Your task to perform on an android device: change alarm snooze length Image 0: 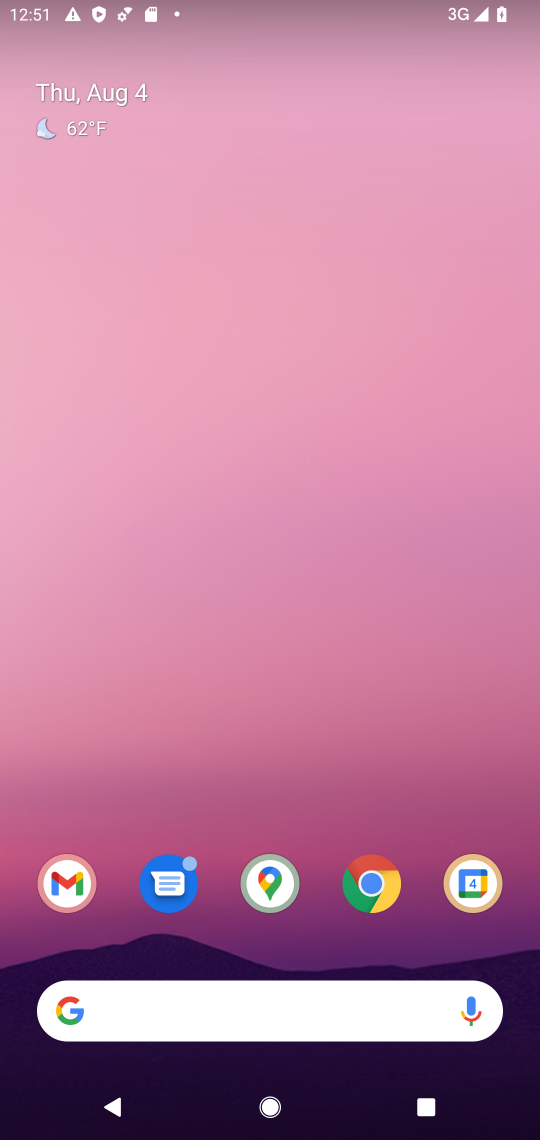
Step 0: drag from (219, 877) to (201, 432)
Your task to perform on an android device: change alarm snooze length Image 1: 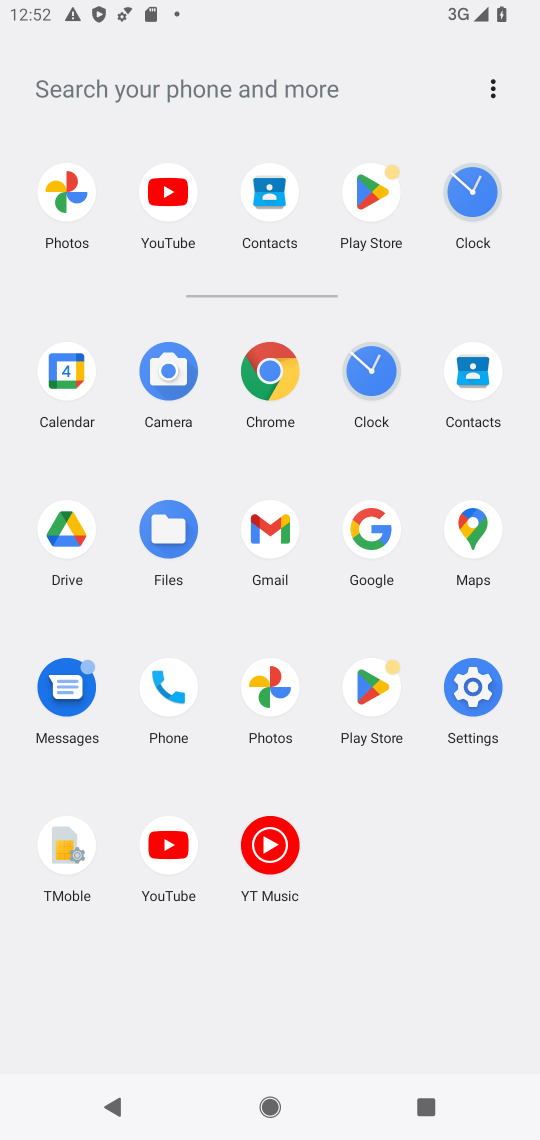
Step 1: drag from (262, 961) to (336, 430)
Your task to perform on an android device: change alarm snooze length Image 2: 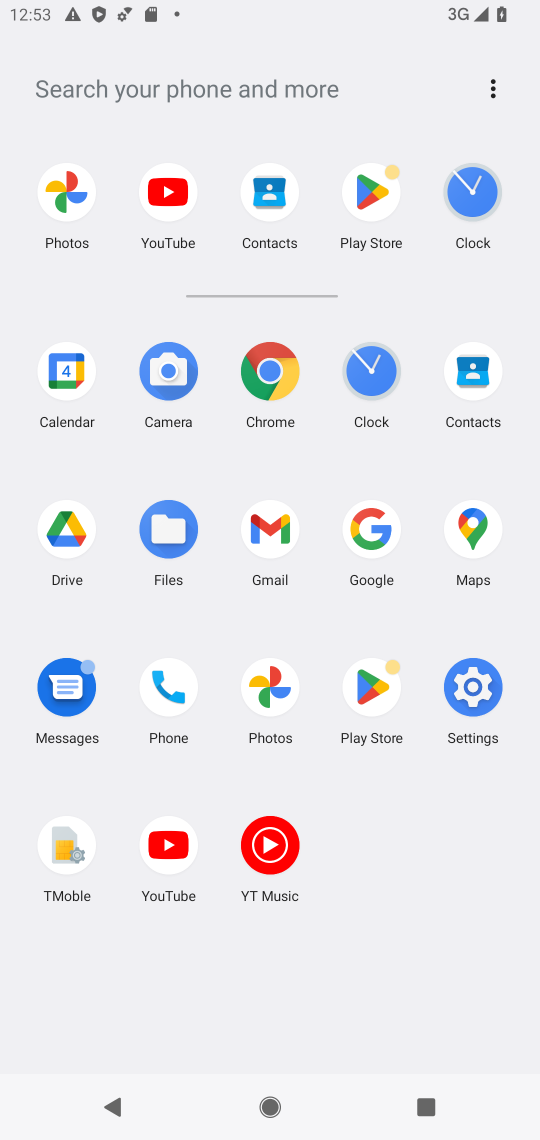
Step 2: click (405, 377)
Your task to perform on an android device: change alarm snooze length Image 3: 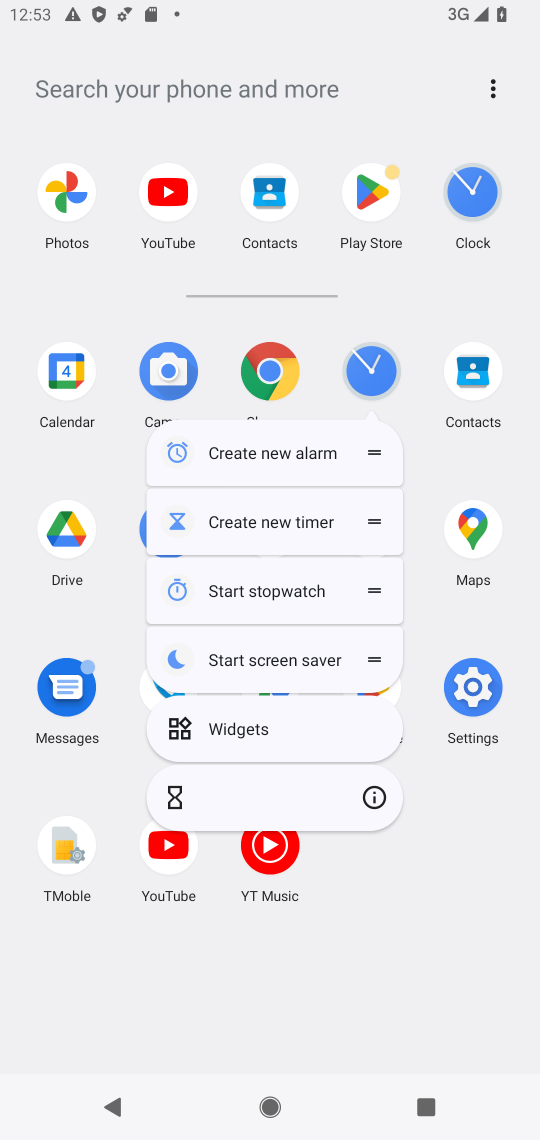
Step 3: click (379, 777)
Your task to perform on an android device: change alarm snooze length Image 4: 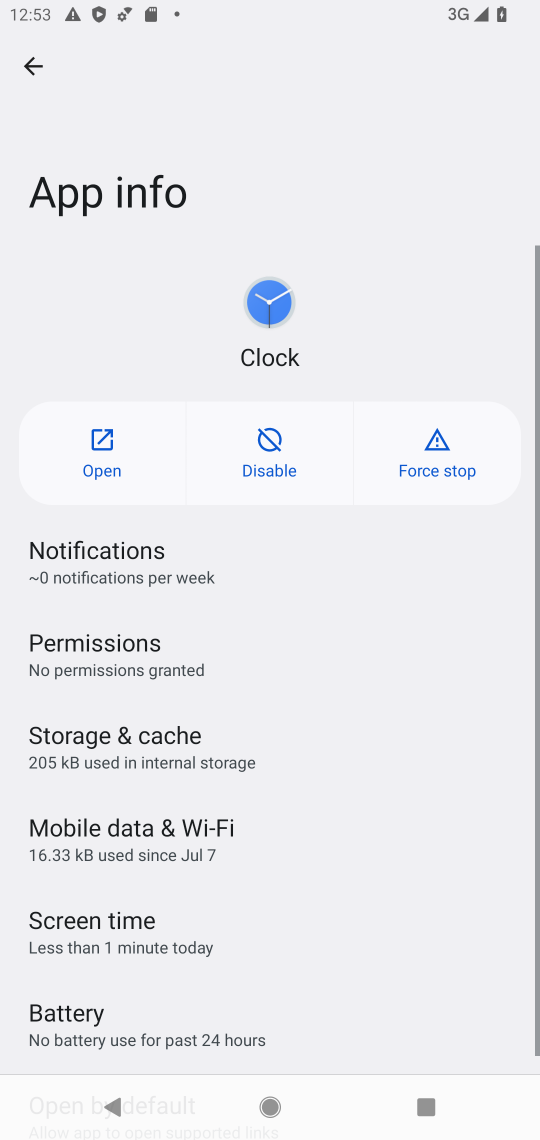
Step 4: click (99, 448)
Your task to perform on an android device: change alarm snooze length Image 5: 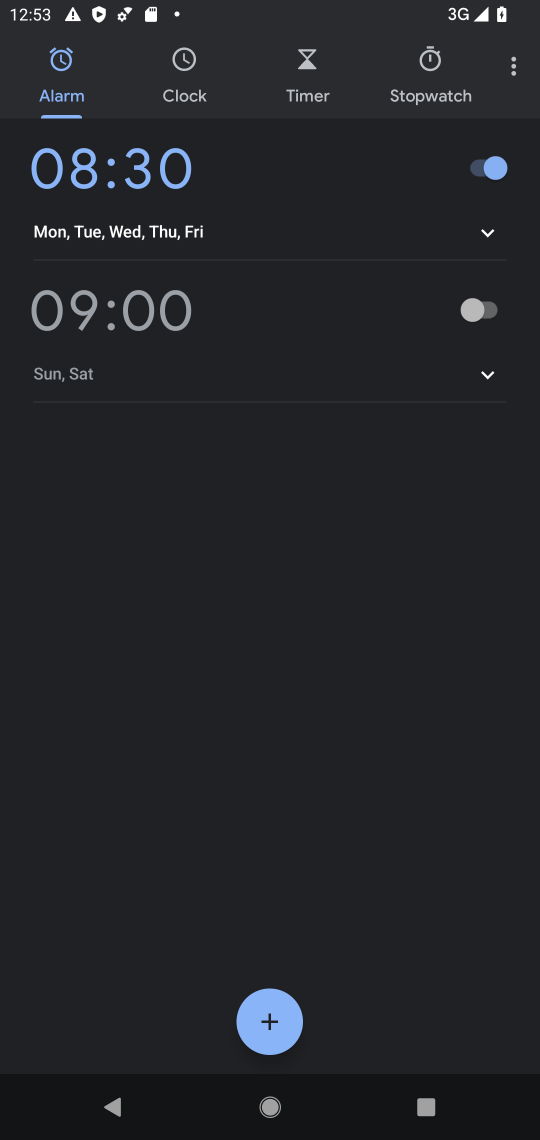
Step 5: drag from (513, 57) to (367, 104)
Your task to perform on an android device: change alarm snooze length Image 6: 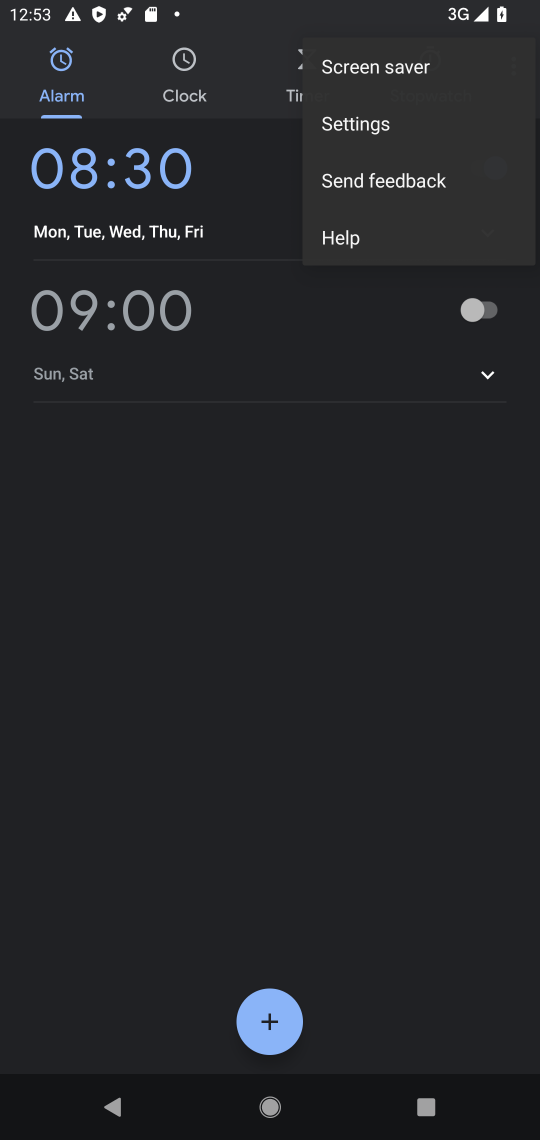
Step 6: click (359, 101)
Your task to perform on an android device: change alarm snooze length Image 7: 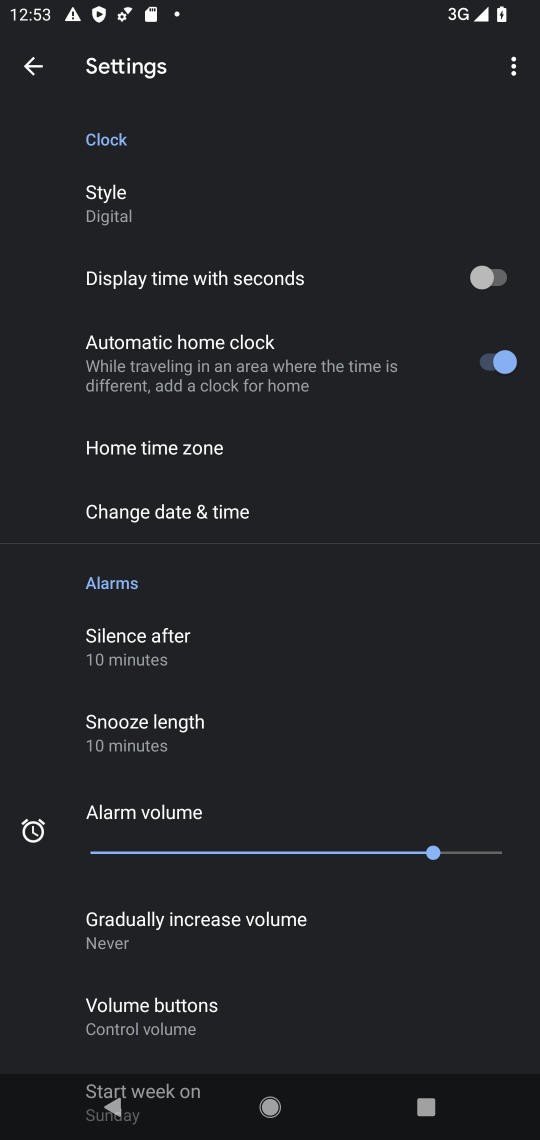
Step 7: click (236, 735)
Your task to perform on an android device: change alarm snooze length Image 8: 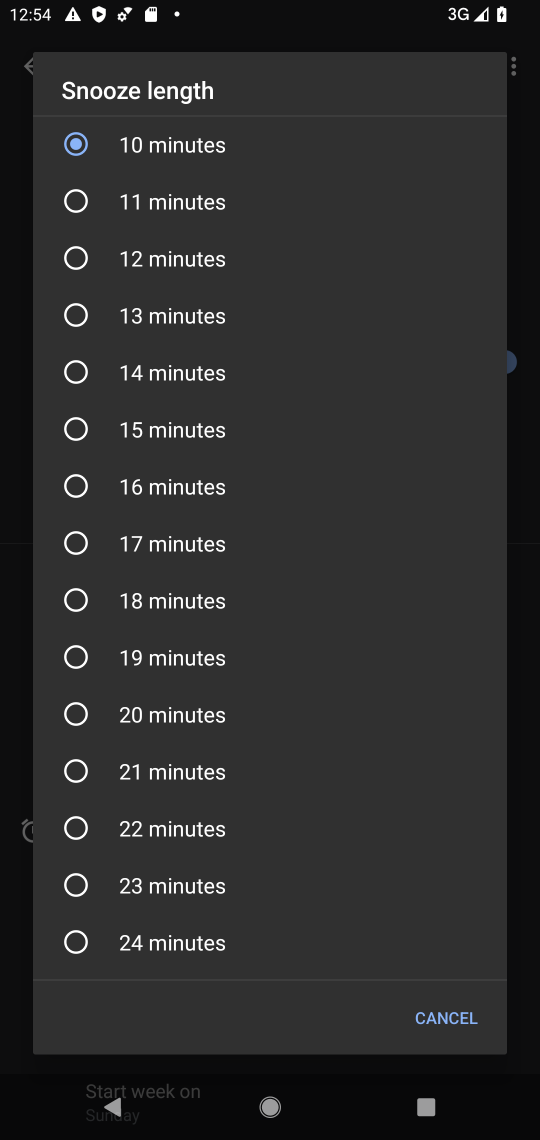
Step 8: drag from (113, 132) to (321, 958)
Your task to perform on an android device: change alarm snooze length Image 9: 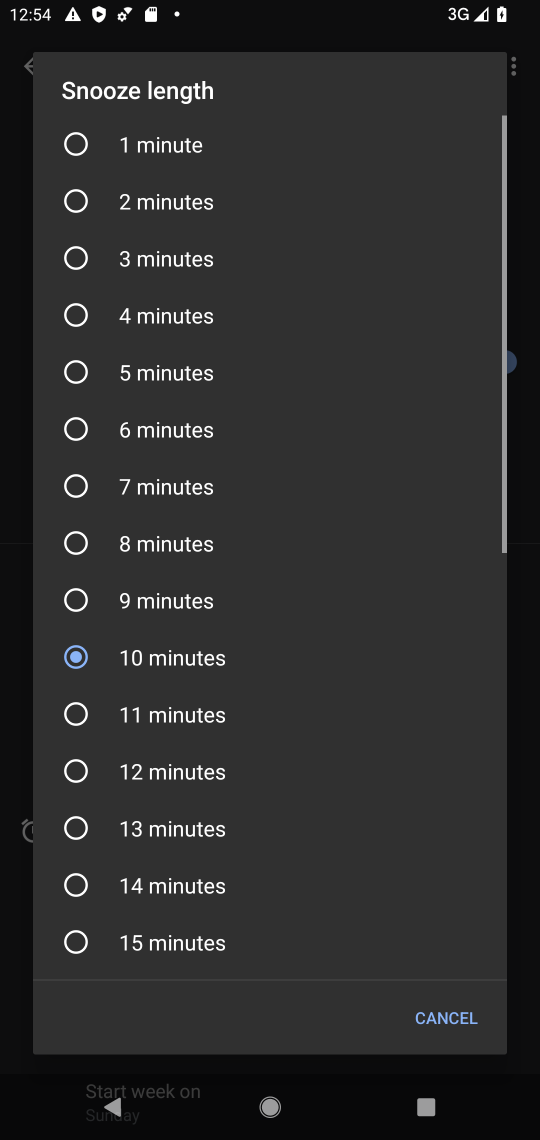
Step 9: click (117, 156)
Your task to perform on an android device: change alarm snooze length Image 10: 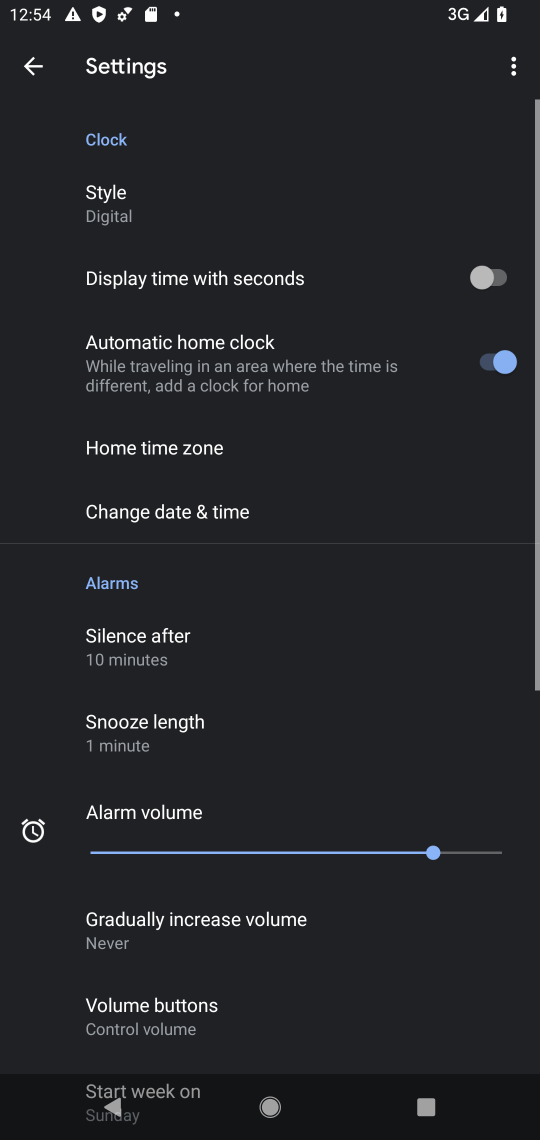
Step 10: drag from (321, 539) to (331, 1055)
Your task to perform on an android device: change alarm snooze length Image 11: 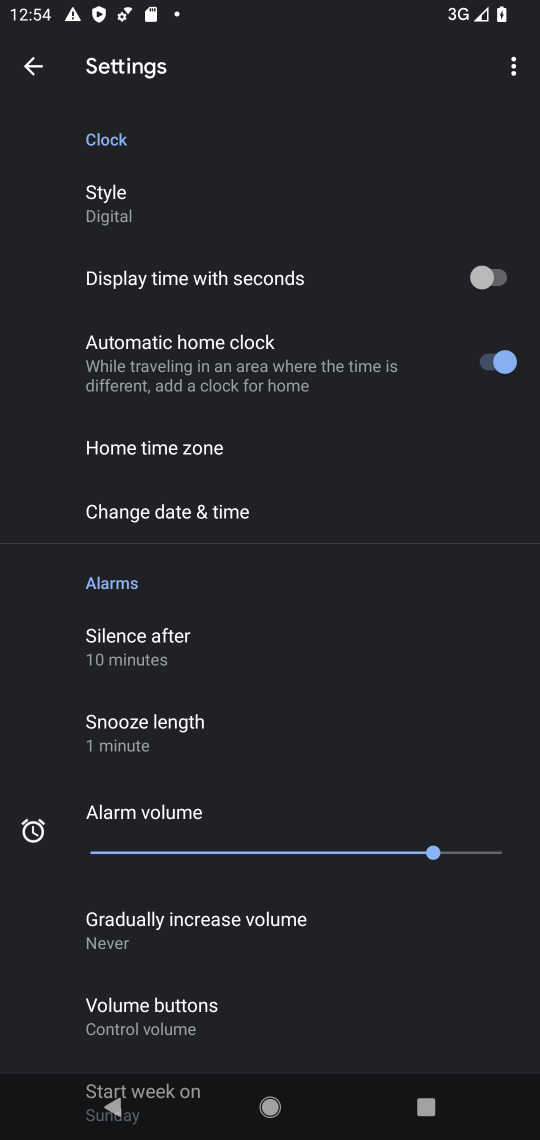
Step 11: drag from (302, 485) to (297, 1132)
Your task to perform on an android device: change alarm snooze length Image 12: 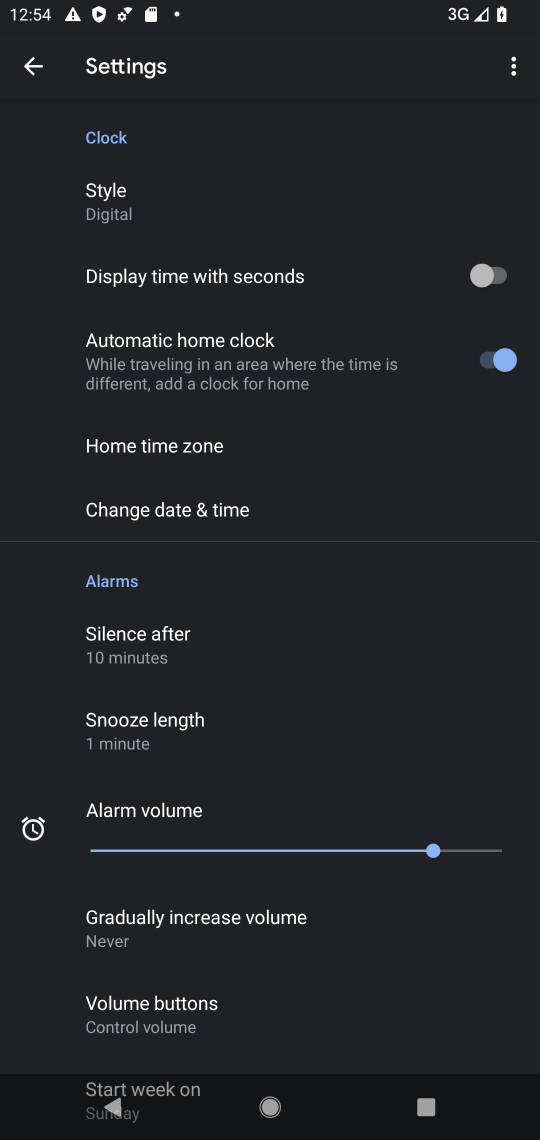
Step 12: drag from (330, 935) to (340, 320)
Your task to perform on an android device: change alarm snooze length Image 13: 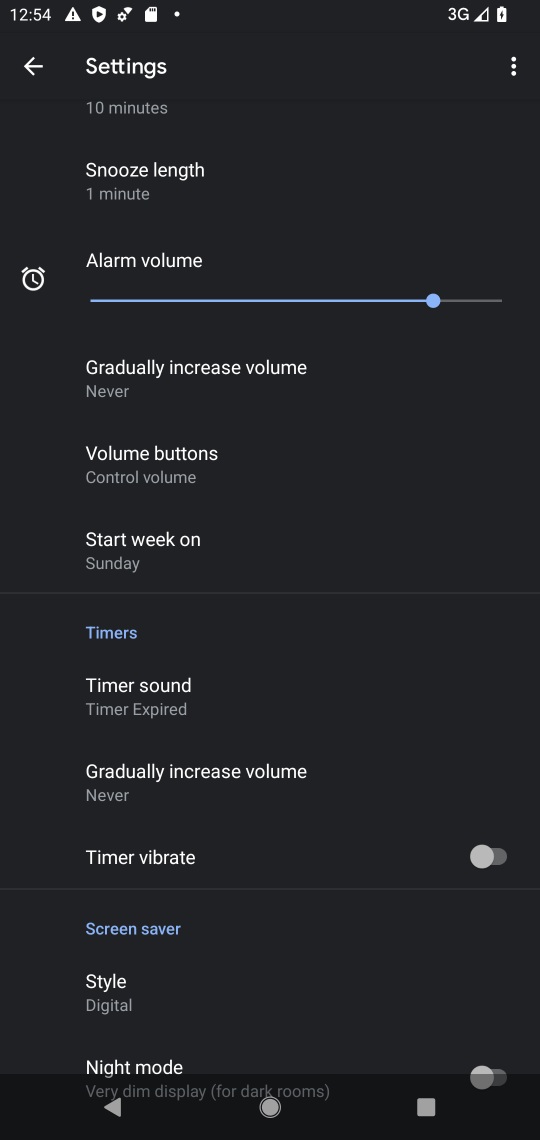
Step 13: drag from (286, 987) to (303, 433)
Your task to perform on an android device: change alarm snooze length Image 14: 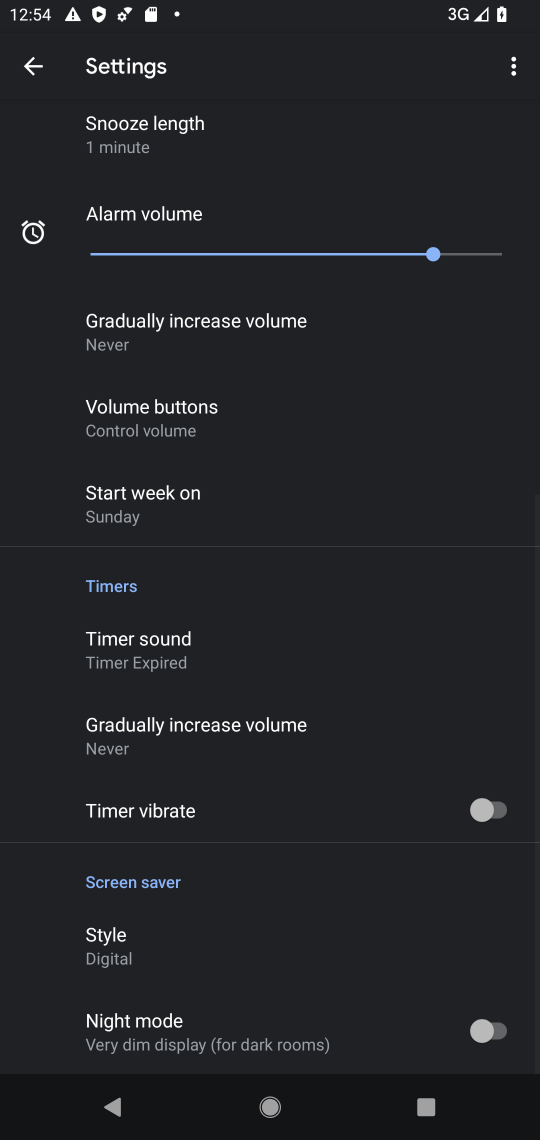
Step 14: drag from (409, 407) to (432, 1117)
Your task to perform on an android device: change alarm snooze length Image 15: 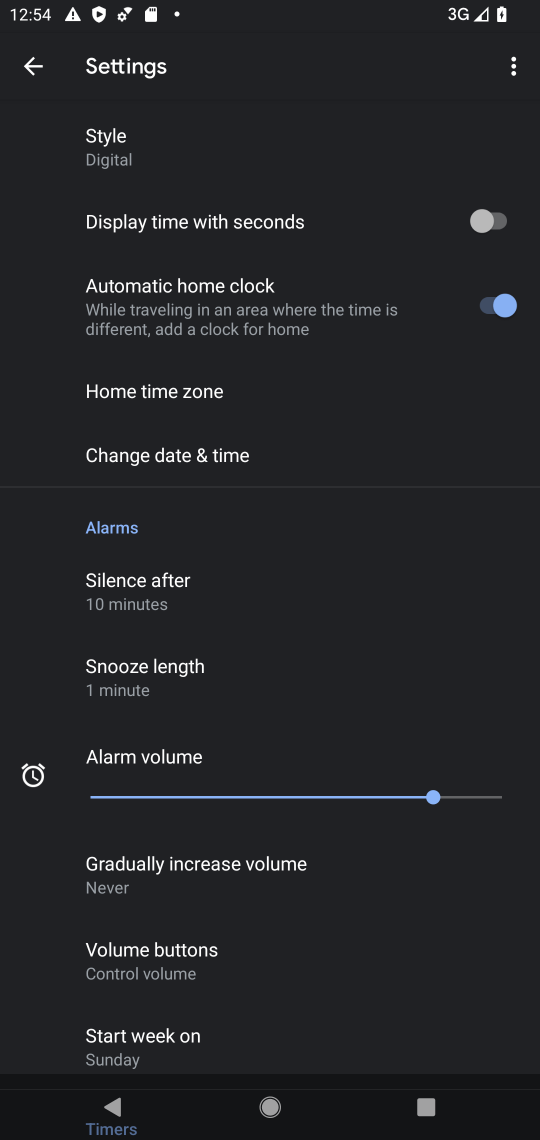
Step 15: click (144, 656)
Your task to perform on an android device: change alarm snooze length Image 16: 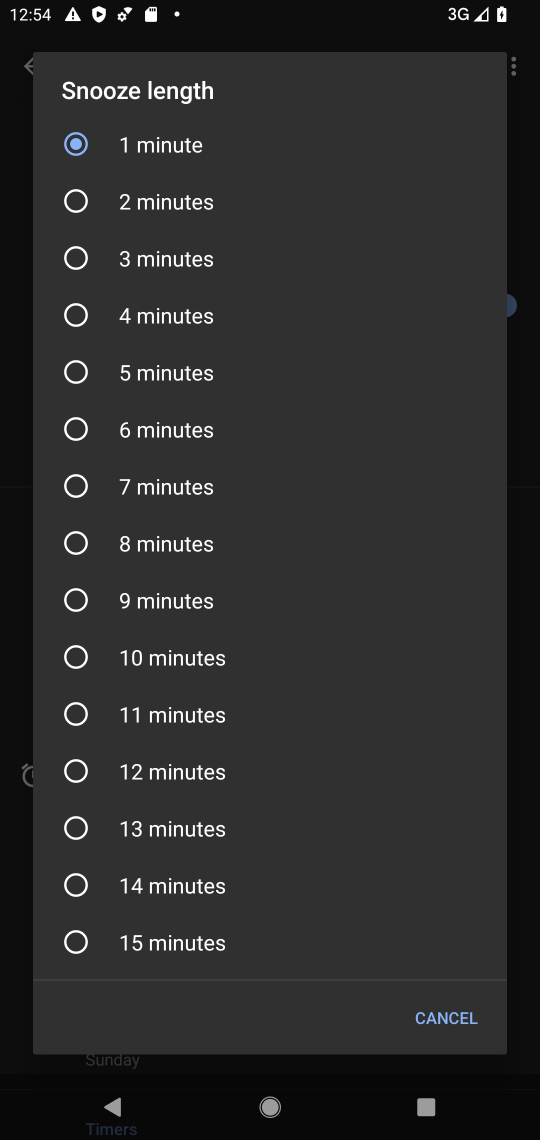
Step 16: drag from (212, 448) to (213, 924)
Your task to perform on an android device: change alarm snooze length Image 17: 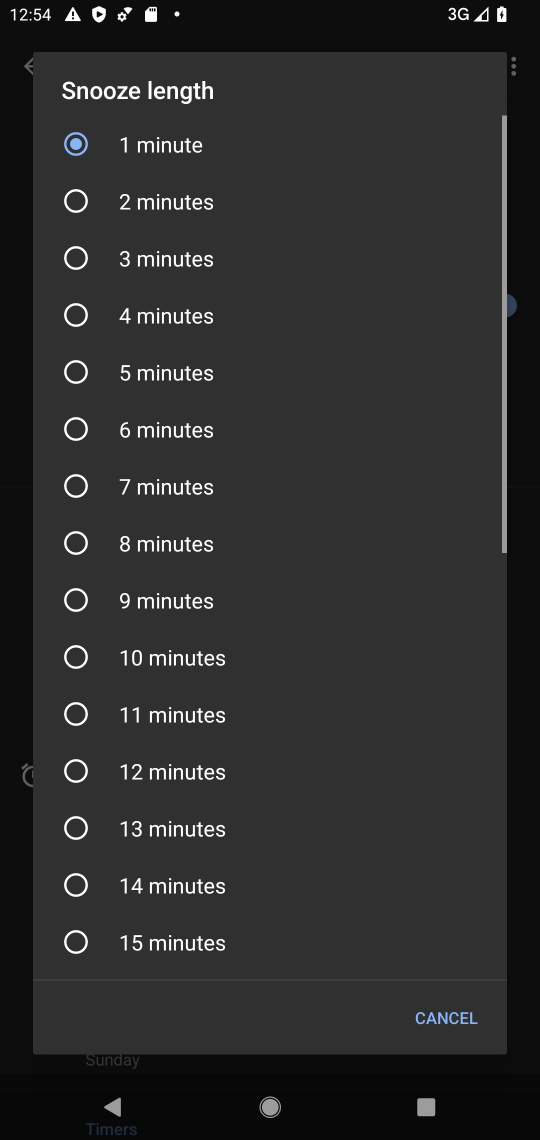
Step 17: click (121, 274)
Your task to perform on an android device: change alarm snooze length Image 18: 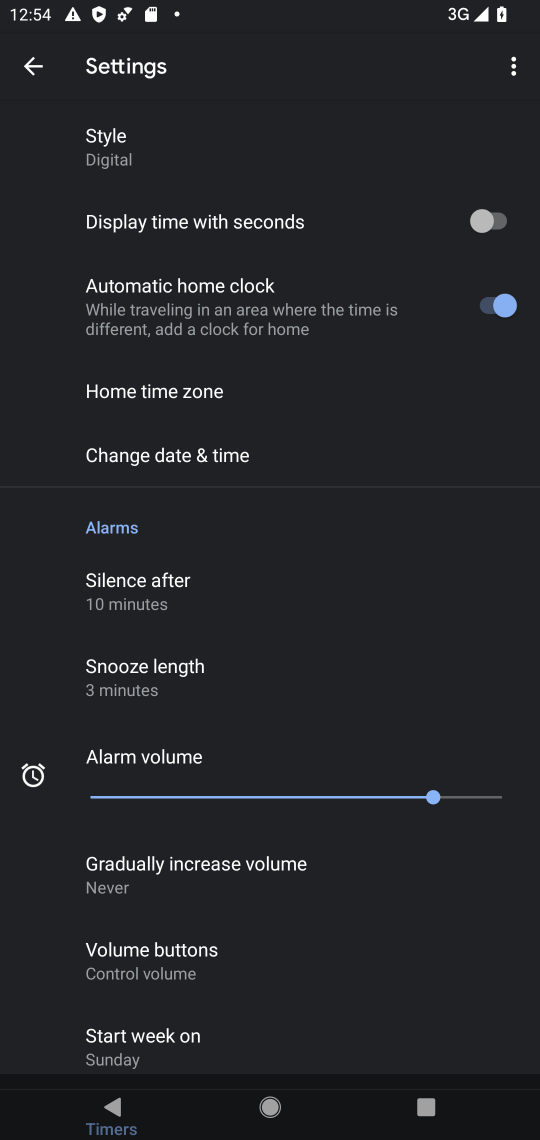
Step 18: click (233, 674)
Your task to perform on an android device: change alarm snooze length Image 19: 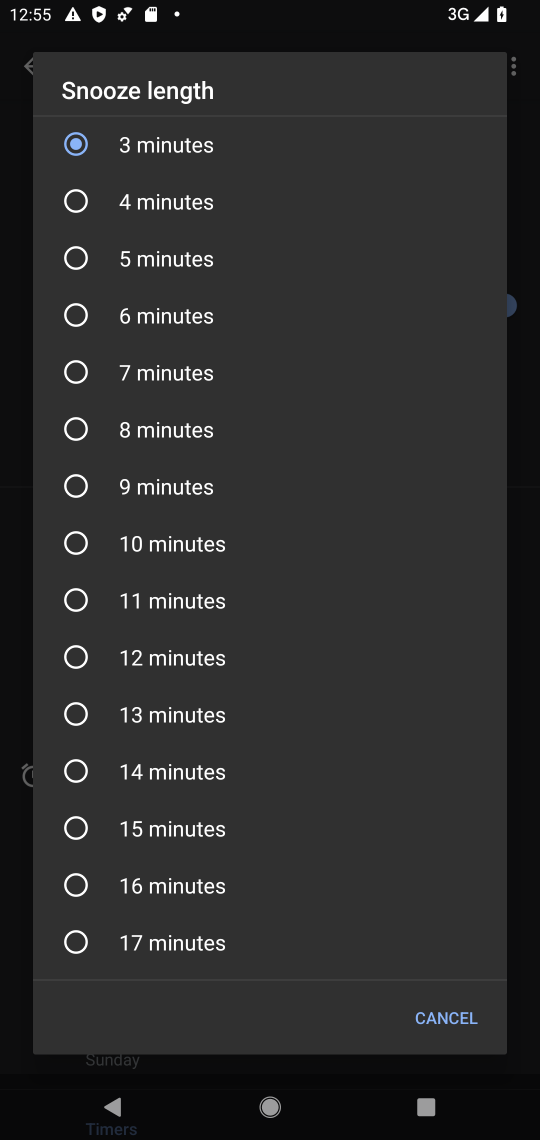
Step 19: drag from (225, 763) to (223, 392)
Your task to perform on an android device: change alarm snooze length Image 20: 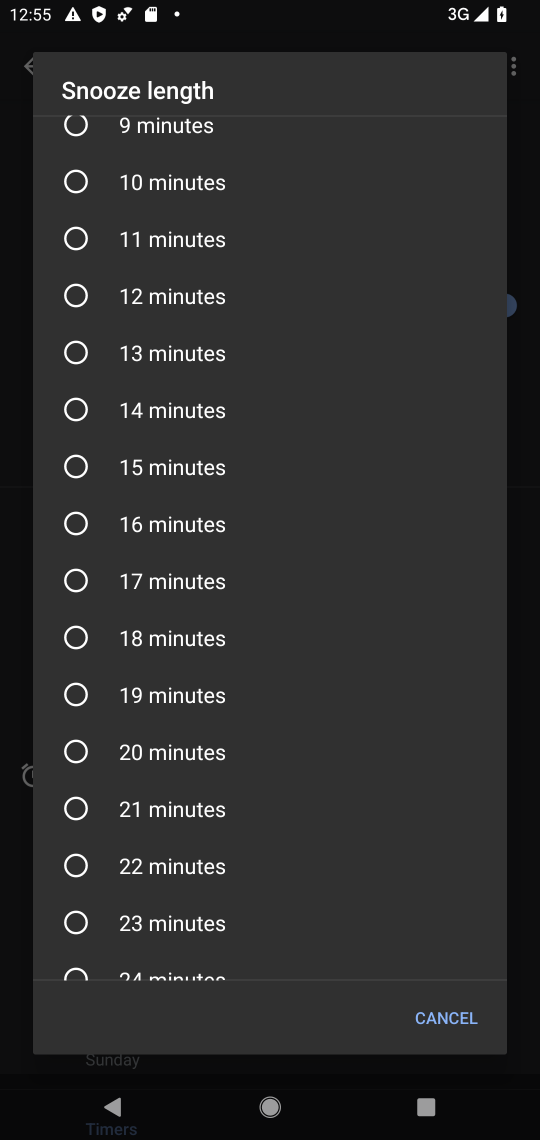
Step 20: click (235, 184)
Your task to perform on an android device: change alarm snooze length Image 21: 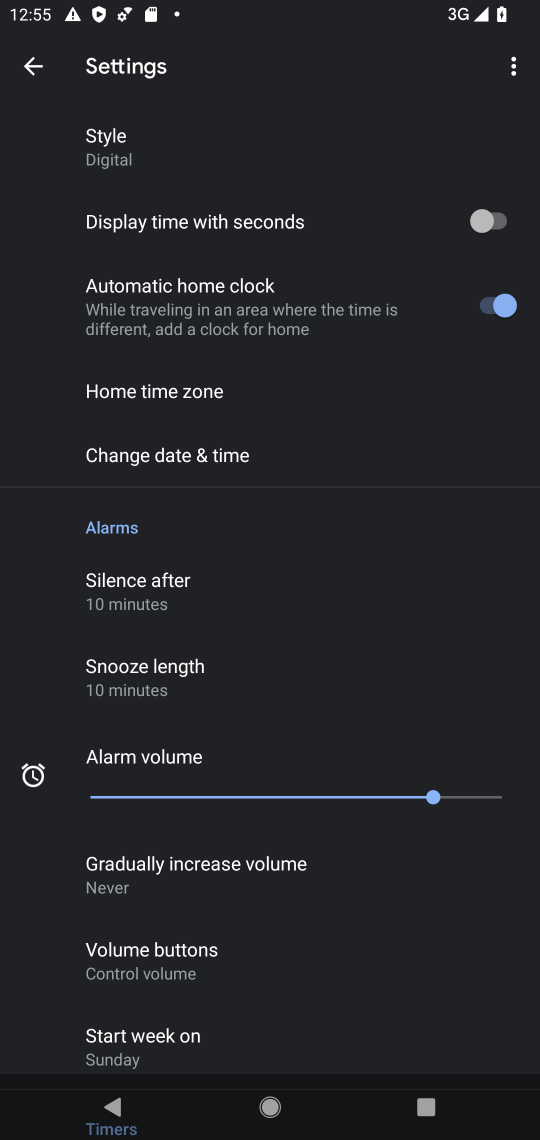
Step 21: drag from (212, 1053) to (286, 640)
Your task to perform on an android device: change alarm snooze length Image 22: 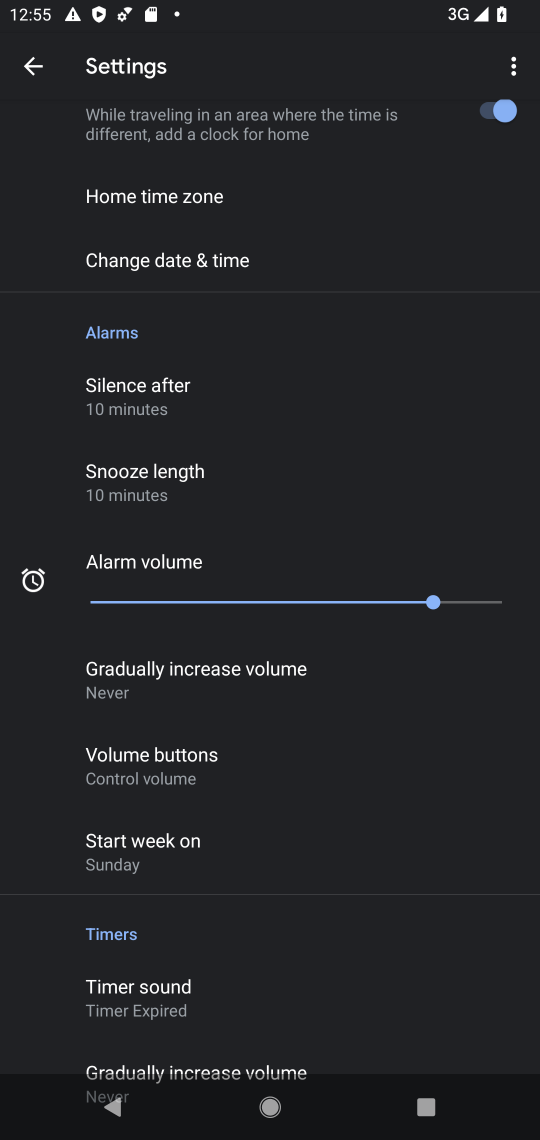
Step 22: drag from (223, 1006) to (332, 377)
Your task to perform on an android device: change alarm snooze length Image 23: 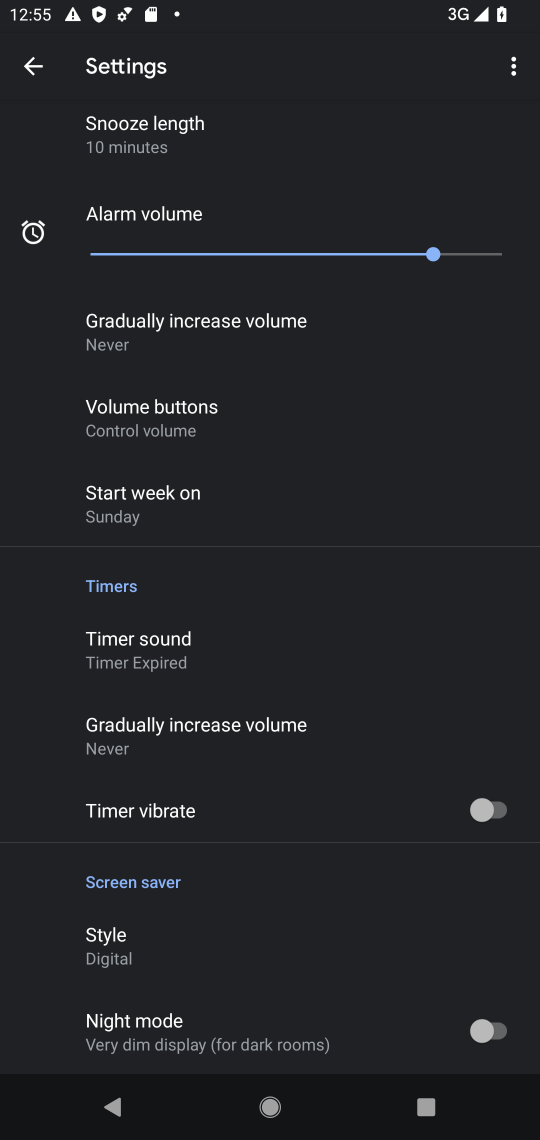
Step 23: click (218, 139)
Your task to perform on an android device: change alarm snooze length Image 24: 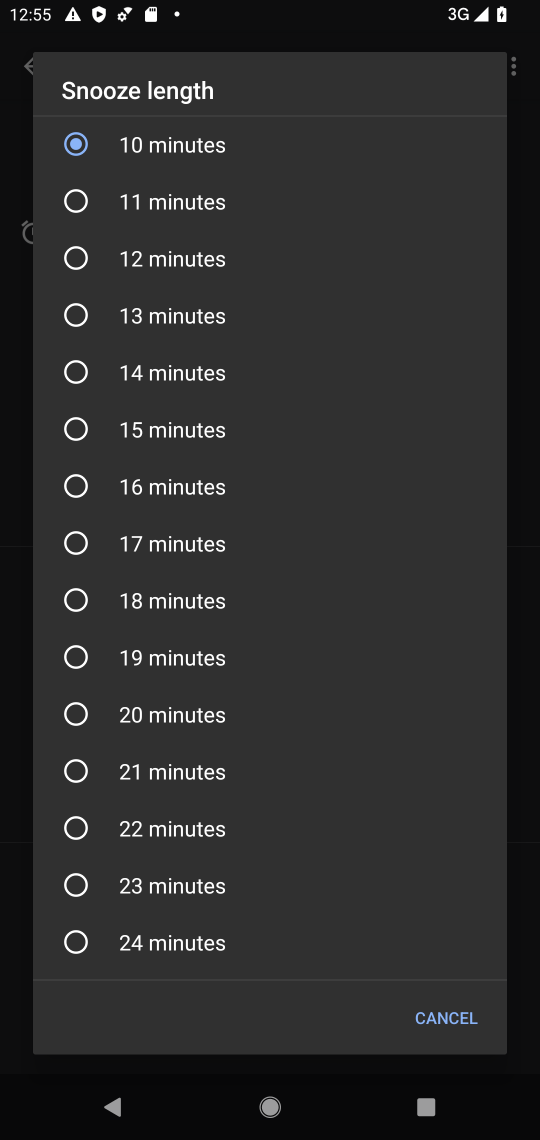
Step 24: task complete